Your task to perform on an android device: Show the shopping cart on target.com. Add bose quietcomfort 35 to the cart on target.com Image 0: 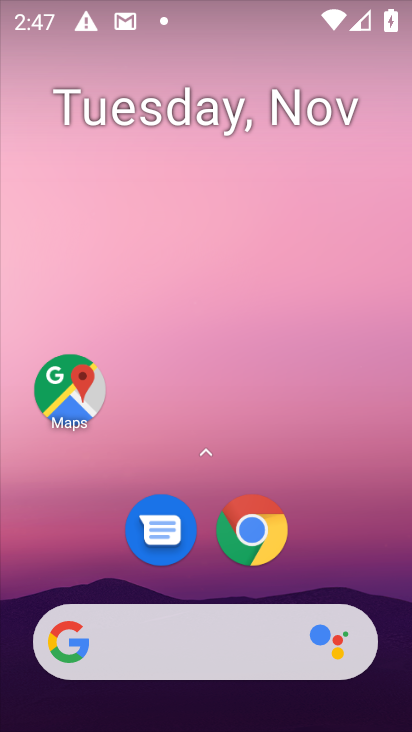
Step 0: drag from (218, 688) to (255, 0)
Your task to perform on an android device: Show the shopping cart on target.com. Add bose quietcomfort 35 to the cart on target.com Image 1: 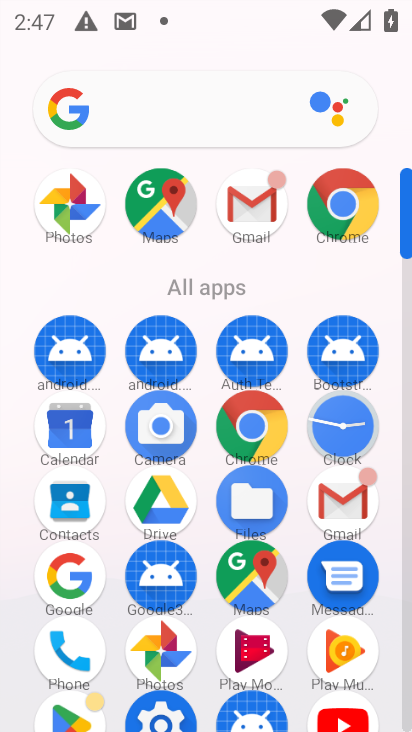
Step 1: click (255, 423)
Your task to perform on an android device: Show the shopping cart on target.com. Add bose quietcomfort 35 to the cart on target.com Image 2: 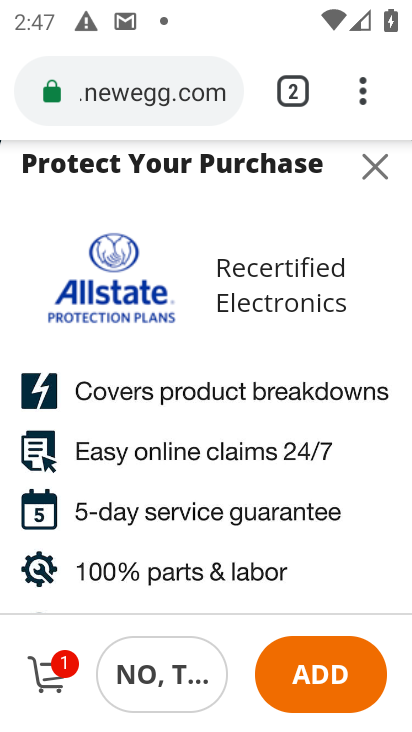
Step 2: click (158, 84)
Your task to perform on an android device: Show the shopping cart on target.com. Add bose quietcomfort 35 to the cart on target.com Image 3: 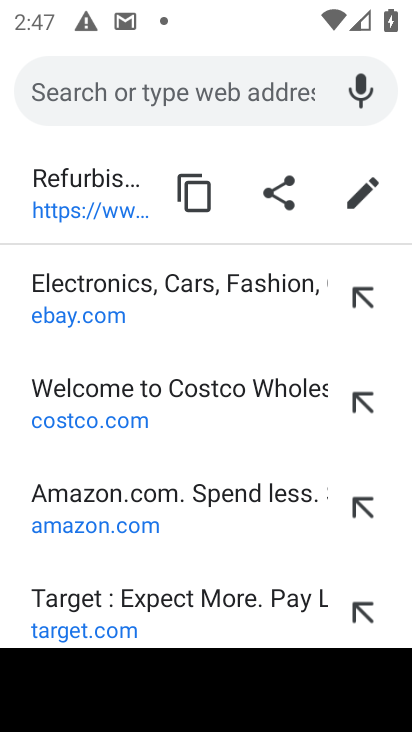
Step 3: type "bose quietcomfort 35"
Your task to perform on an android device: Show the shopping cart on target.com. Add bose quietcomfort 35 to the cart on target.com Image 4: 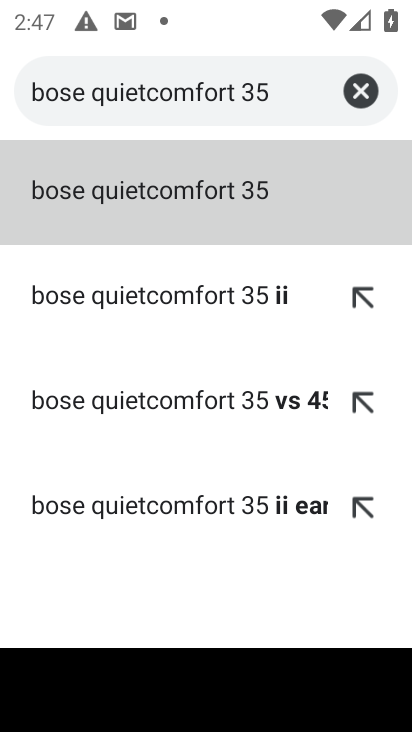
Step 4: click (142, 196)
Your task to perform on an android device: Show the shopping cart on target.com. Add bose quietcomfort 35 to the cart on target.com Image 5: 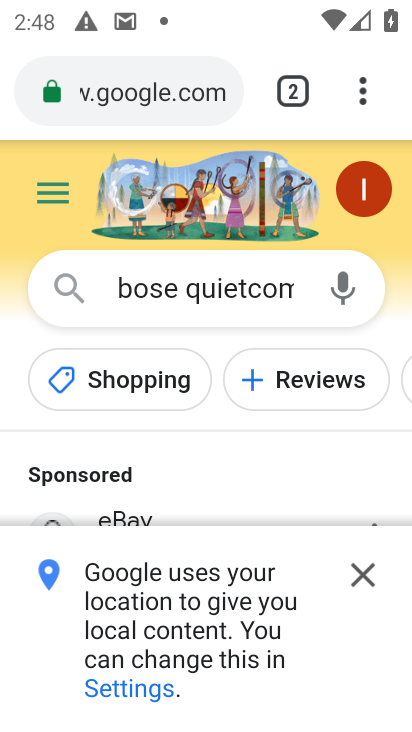
Step 5: click (359, 572)
Your task to perform on an android device: Show the shopping cart on target.com. Add bose quietcomfort 35 to the cart on target.com Image 6: 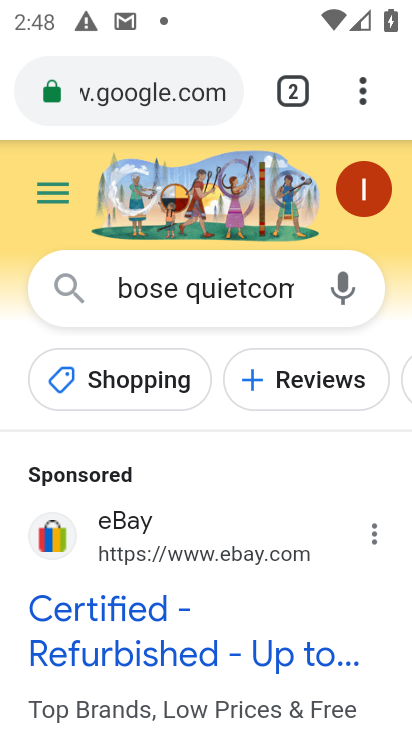
Step 6: drag from (233, 611) to (217, 305)
Your task to perform on an android device: Show the shopping cart on target.com. Add bose quietcomfort 35 to the cart on target.com Image 7: 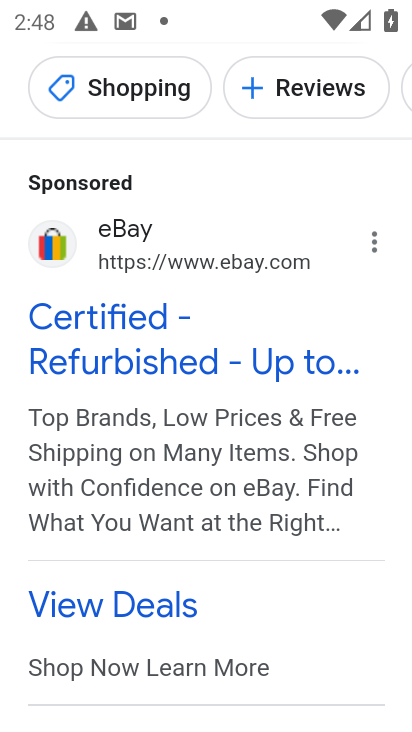
Step 7: click (87, 356)
Your task to perform on an android device: Show the shopping cart on target.com. Add bose quietcomfort 35 to the cart on target.com Image 8: 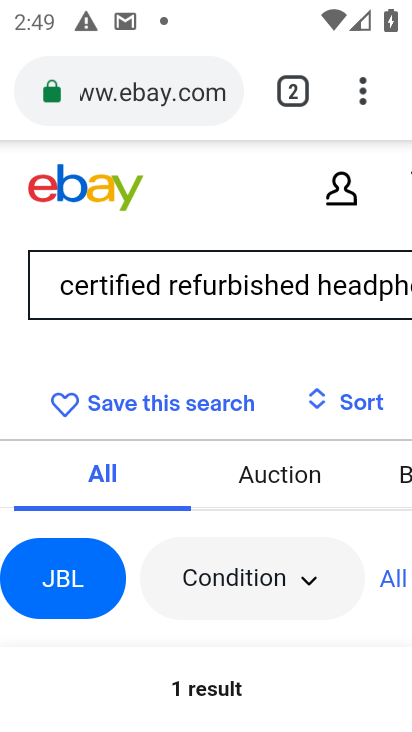
Step 8: drag from (345, 609) to (340, 82)
Your task to perform on an android device: Show the shopping cart on target.com. Add bose quietcomfort 35 to the cart on target.com Image 9: 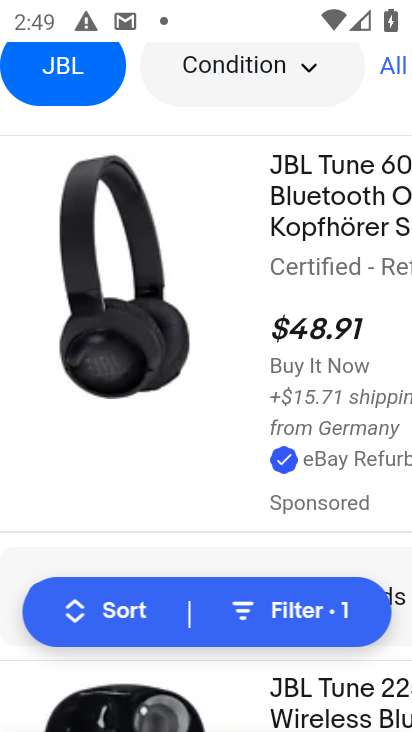
Step 9: click (157, 332)
Your task to perform on an android device: Show the shopping cart on target.com. Add bose quietcomfort 35 to the cart on target.com Image 10: 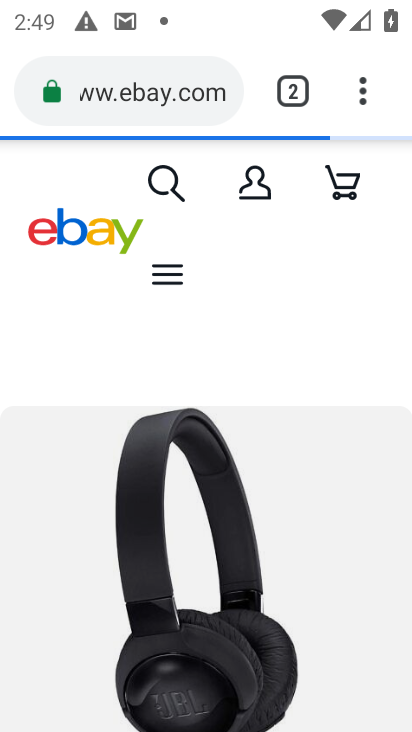
Step 10: drag from (327, 501) to (257, 83)
Your task to perform on an android device: Show the shopping cart on target.com. Add bose quietcomfort 35 to the cart on target.com Image 11: 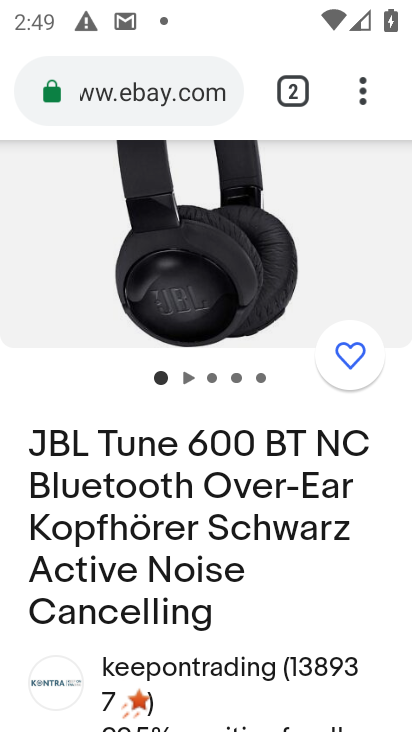
Step 11: drag from (245, 549) to (303, 129)
Your task to perform on an android device: Show the shopping cart on target.com. Add bose quietcomfort 35 to the cart on target.com Image 12: 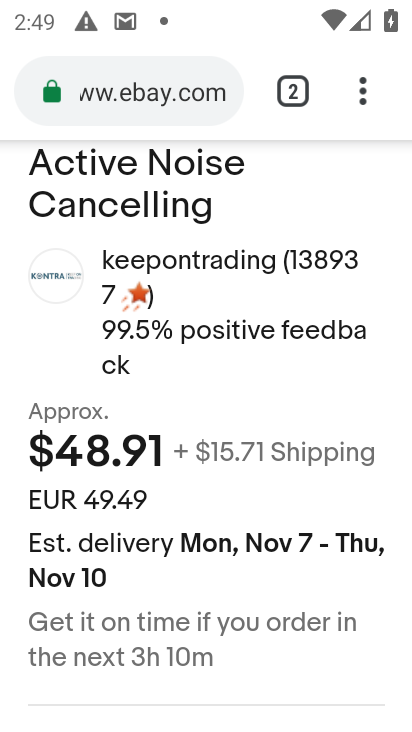
Step 12: drag from (242, 664) to (234, 162)
Your task to perform on an android device: Show the shopping cart on target.com. Add bose quietcomfort 35 to the cart on target.com Image 13: 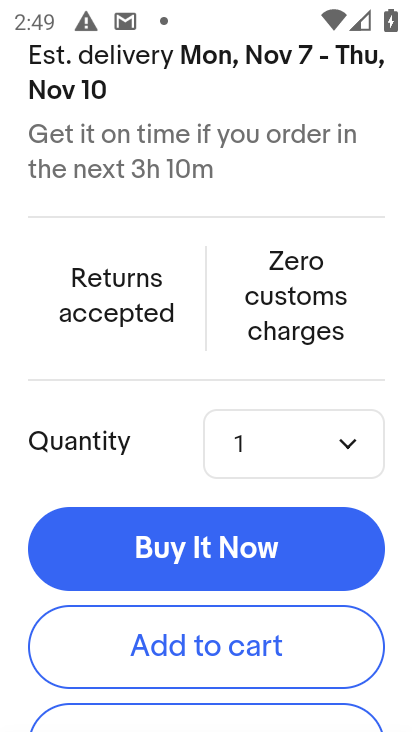
Step 13: click (200, 648)
Your task to perform on an android device: Show the shopping cart on target.com. Add bose quietcomfort 35 to the cart on target.com Image 14: 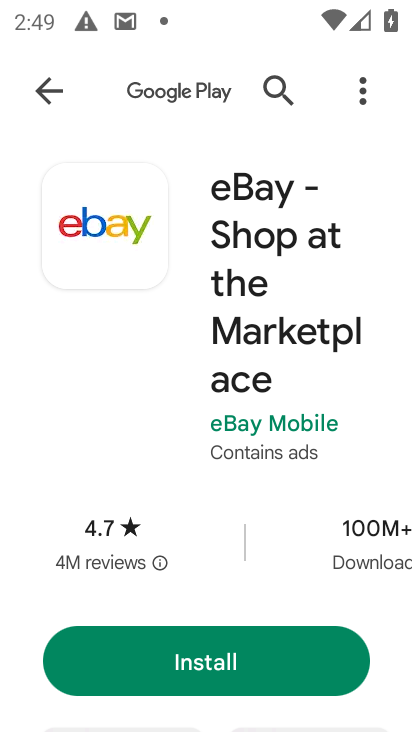
Step 14: click (42, 83)
Your task to perform on an android device: Show the shopping cart on target.com. Add bose quietcomfort 35 to the cart on target.com Image 15: 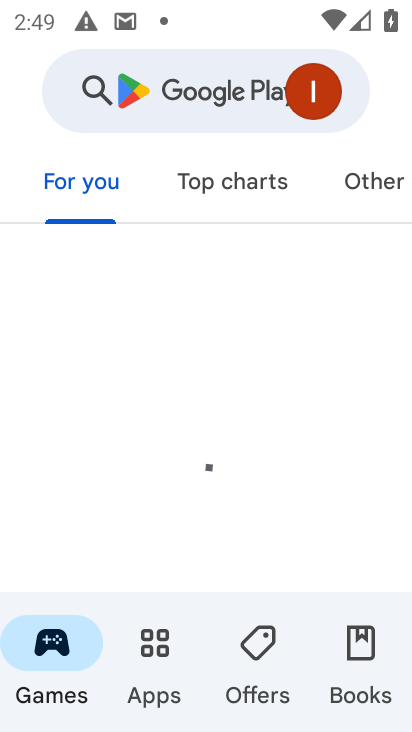
Step 15: press back button
Your task to perform on an android device: Show the shopping cart on target.com. Add bose quietcomfort 35 to the cart on target.com Image 16: 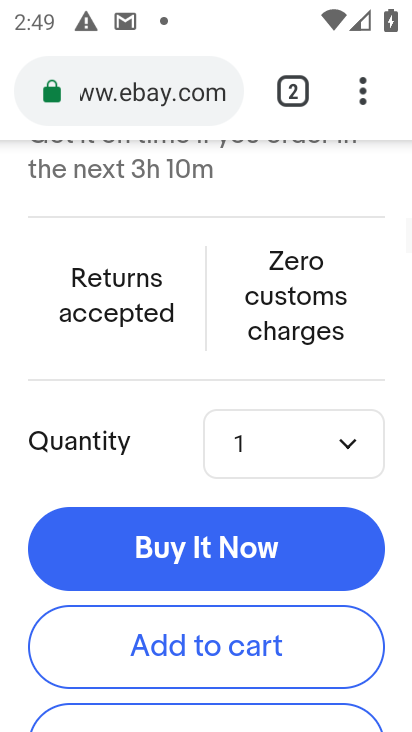
Step 16: press back button
Your task to perform on an android device: Show the shopping cart on target.com. Add bose quietcomfort 35 to the cart on target.com Image 17: 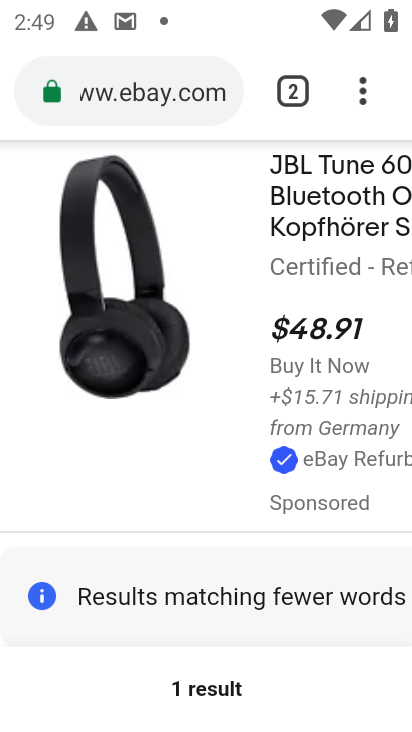
Step 17: drag from (281, 433) to (356, 164)
Your task to perform on an android device: Show the shopping cart on target.com. Add bose quietcomfort 35 to the cart on target.com Image 18: 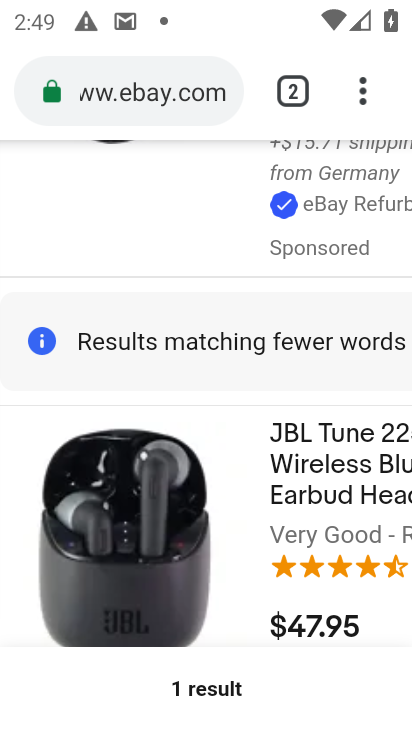
Step 18: drag from (323, 273) to (292, 642)
Your task to perform on an android device: Show the shopping cart on target.com. Add bose quietcomfort 35 to the cart on target.com Image 19: 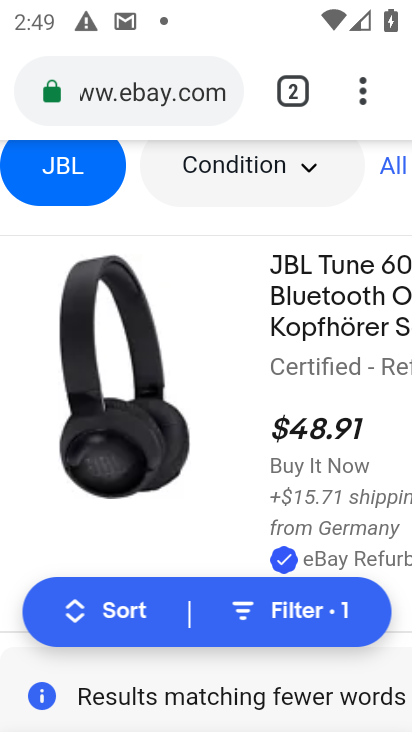
Step 19: click (254, 407)
Your task to perform on an android device: Show the shopping cart on target.com. Add bose quietcomfort 35 to the cart on target.com Image 20: 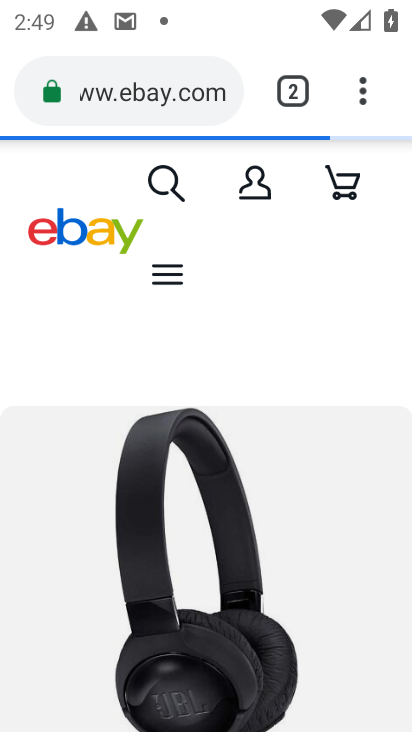
Step 20: drag from (294, 496) to (308, 206)
Your task to perform on an android device: Show the shopping cart on target.com. Add bose quietcomfort 35 to the cart on target.com Image 21: 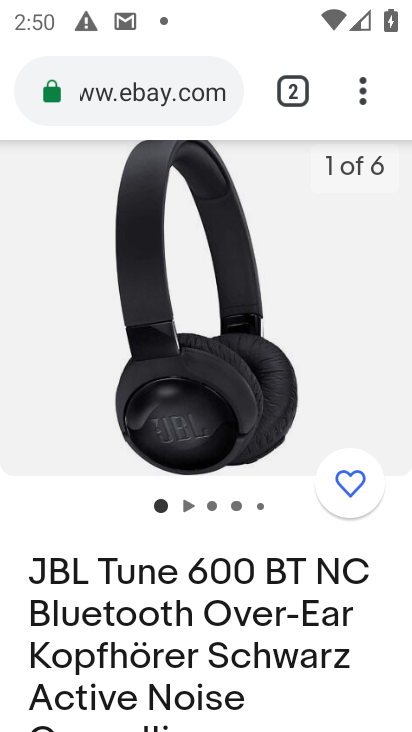
Step 21: drag from (296, 614) to (298, 247)
Your task to perform on an android device: Show the shopping cart on target.com. Add bose quietcomfort 35 to the cart on target.com Image 22: 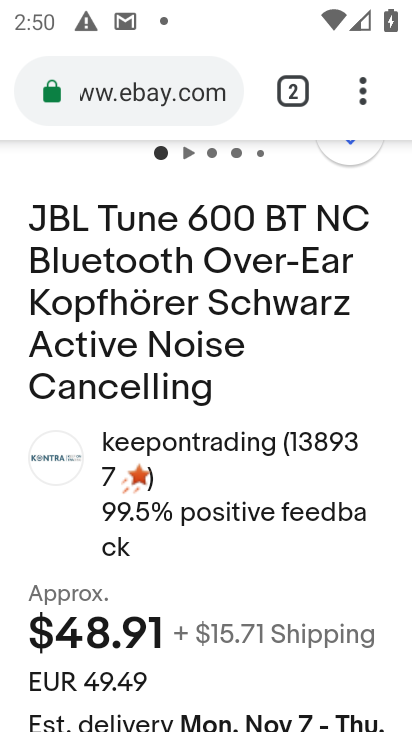
Step 22: drag from (252, 428) to (298, 258)
Your task to perform on an android device: Show the shopping cart on target.com. Add bose quietcomfort 35 to the cart on target.com Image 23: 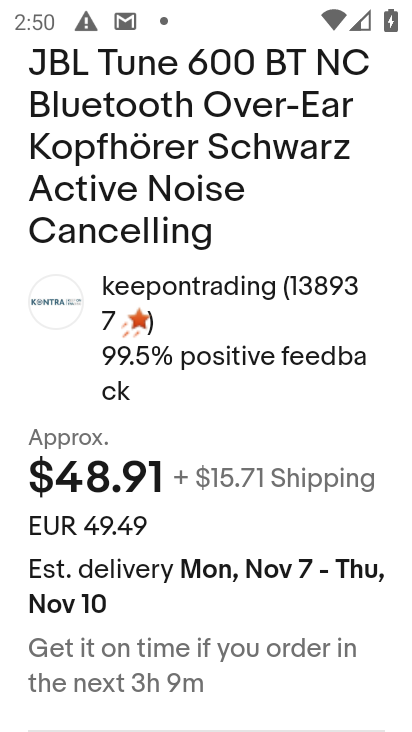
Step 23: drag from (311, 510) to (317, 206)
Your task to perform on an android device: Show the shopping cart on target.com. Add bose quietcomfort 35 to the cart on target.com Image 24: 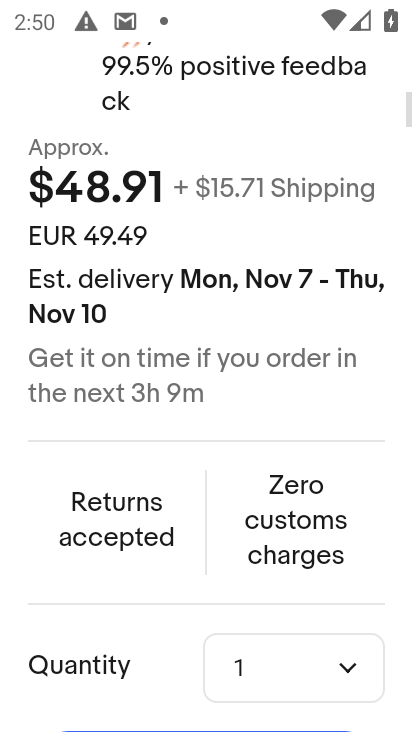
Step 24: drag from (264, 526) to (331, 236)
Your task to perform on an android device: Show the shopping cart on target.com. Add bose quietcomfort 35 to the cart on target.com Image 25: 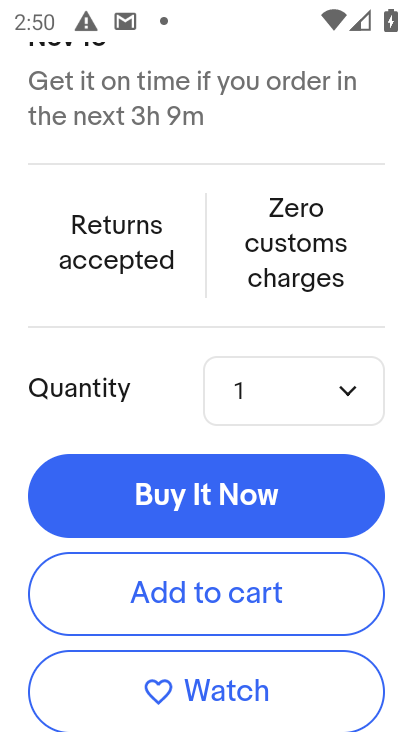
Step 25: click (202, 598)
Your task to perform on an android device: Show the shopping cart on target.com. Add bose quietcomfort 35 to the cart on target.com Image 26: 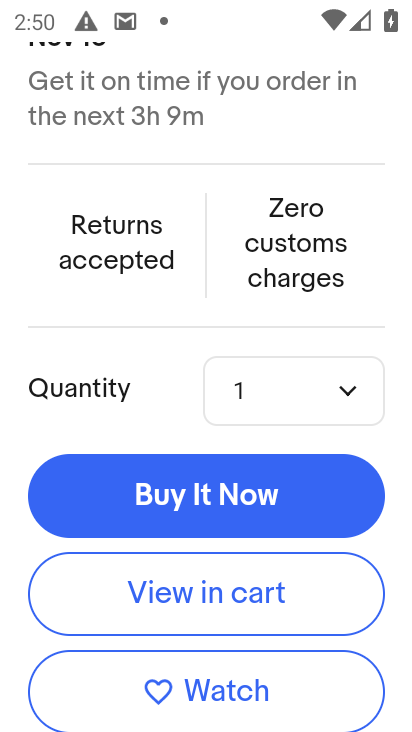
Step 26: task complete